Your task to perform on an android device: Add "corsair k70" to the cart on bestbuy Image 0: 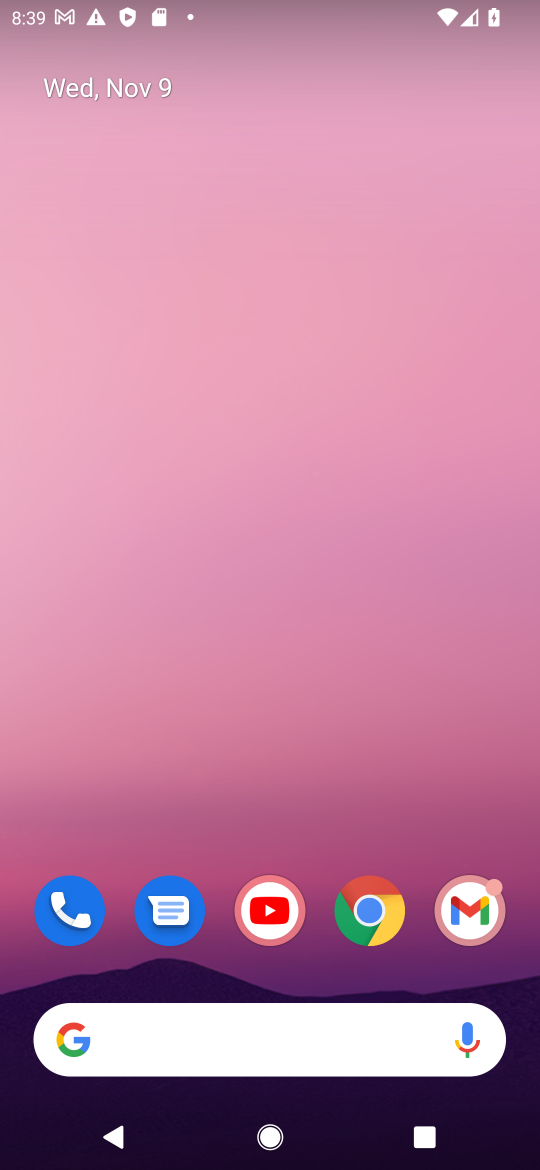
Step 0: click (373, 914)
Your task to perform on an android device: Add "corsair k70" to the cart on bestbuy Image 1: 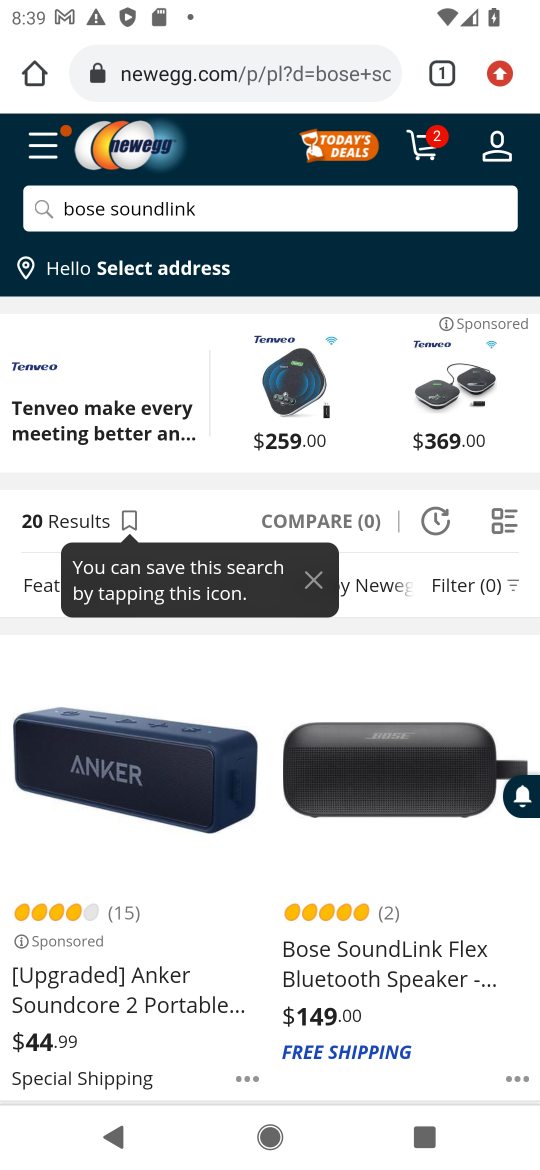
Step 1: click (183, 49)
Your task to perform on an android device: Add "corsair k70" to the cart on bestbuy Image 2: 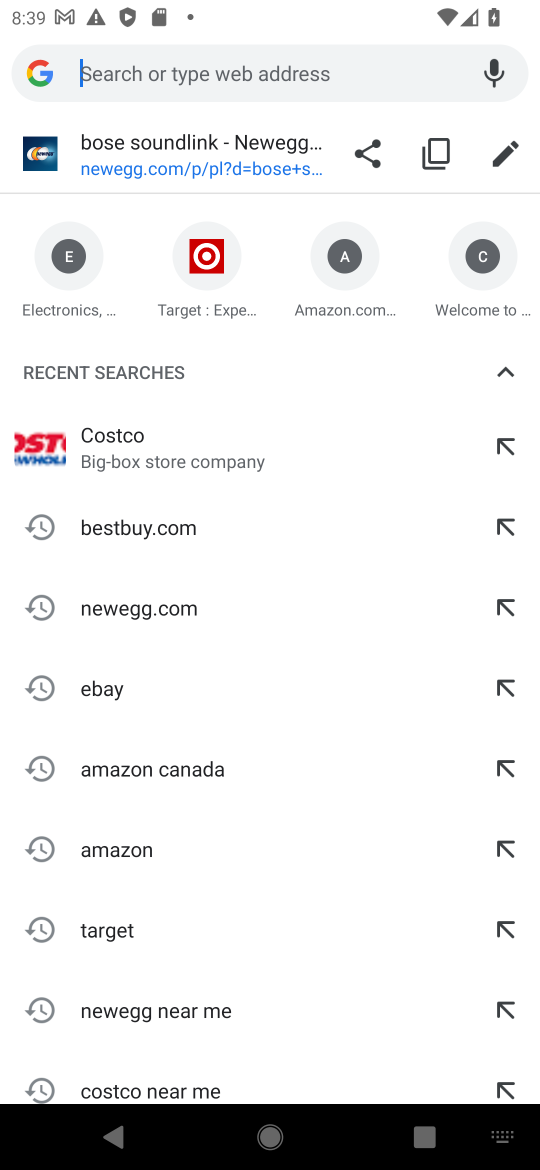
Step 2: click (102, 543)
Your task to perform on an android device: Add "corsair k70" to the cart on bestbuy Image 3: 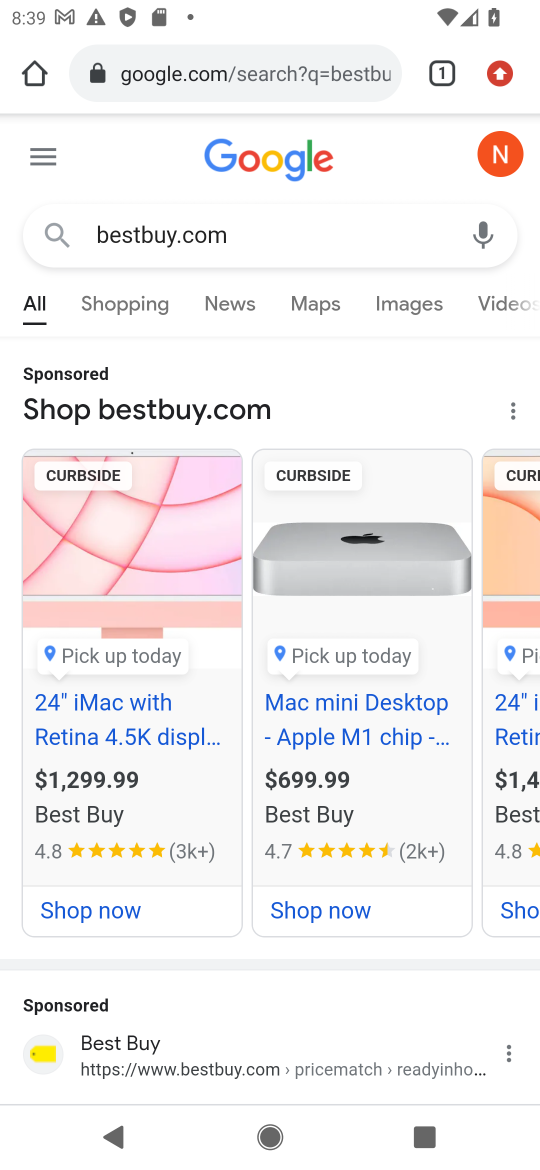
Step 3: drag from (181, 743) to (184, 291)
Your task to perform on an android device: Add "corsair k70" to the cart on bestbuy Image 4: 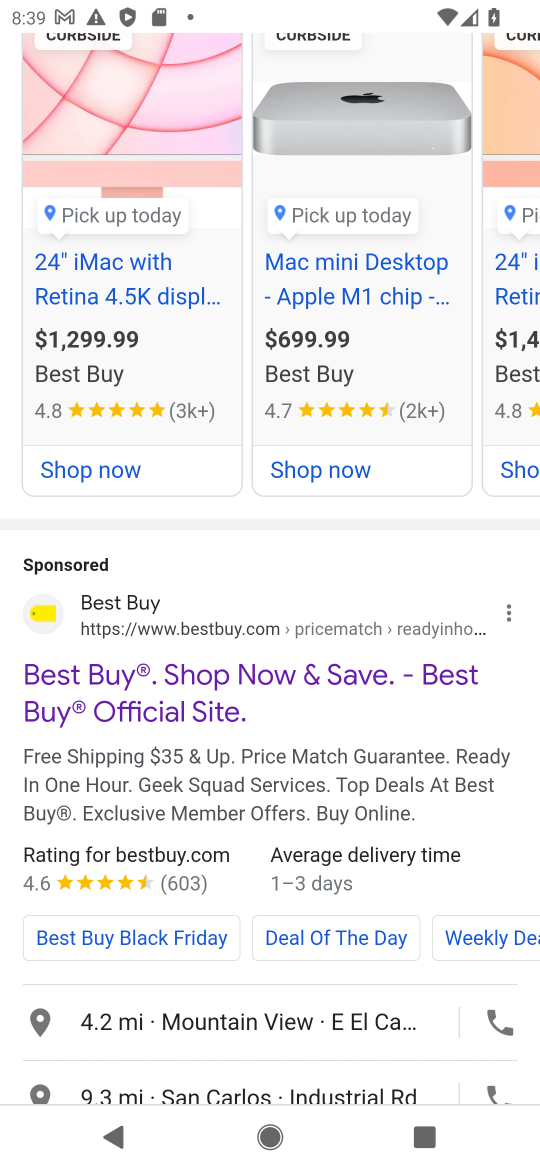
Step 4: drag from (150, 739) to (131, 335)
Your task to perform on an android device: Add "corsair k70" to the cart on bestbuy Image 5: 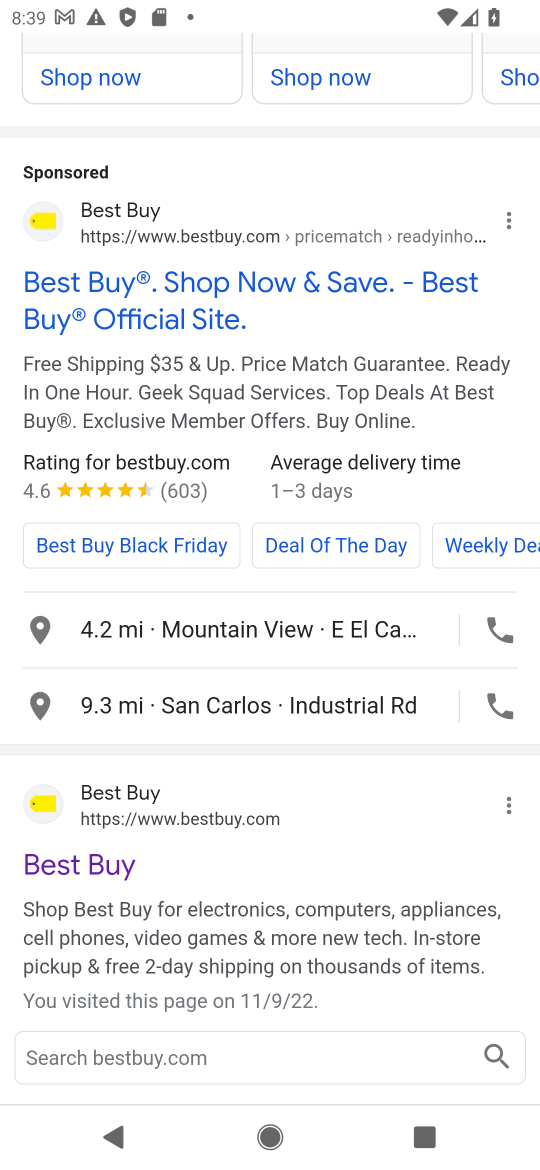
Step 5: click (93, 819)
Your task to perform on an android device: Add "corsair k70" to the cart on bestbuy Image 6: 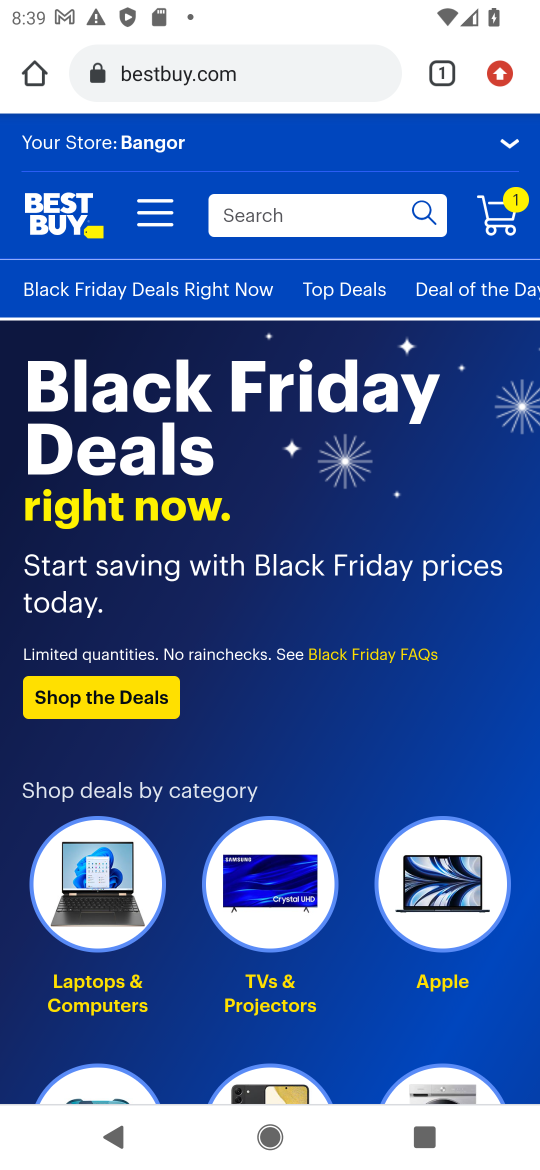
Step 6: click (267, 221)
Your task to perform on an android device: Add "corsair k70" to the cart on bestbuy Image 7: 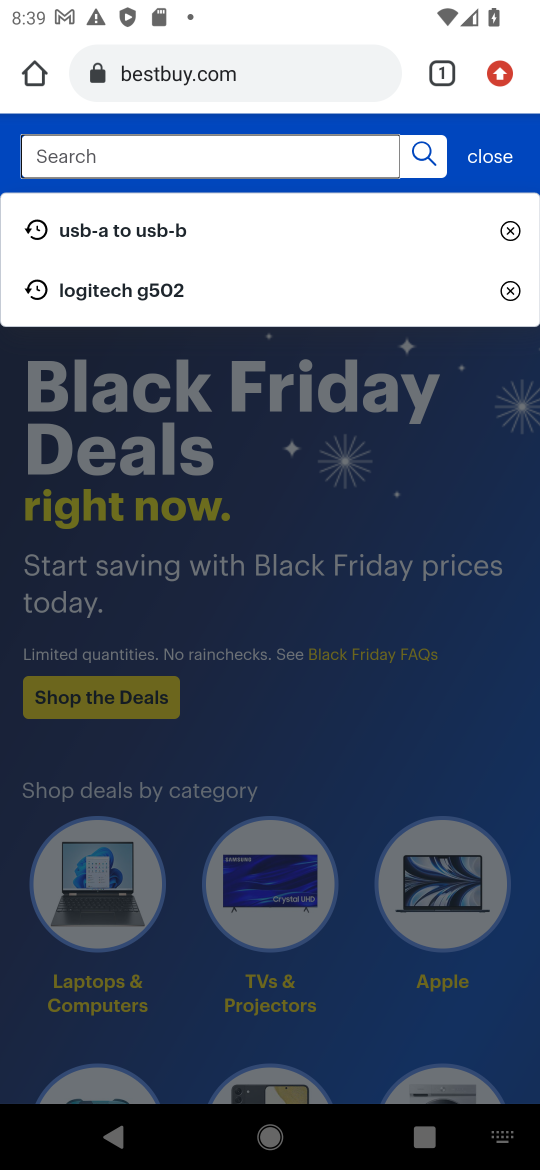
Step 7: type "corsair k70"
Your task to perform on an android device: Add "corsair k70" to the cart on bestbuy Image 8: 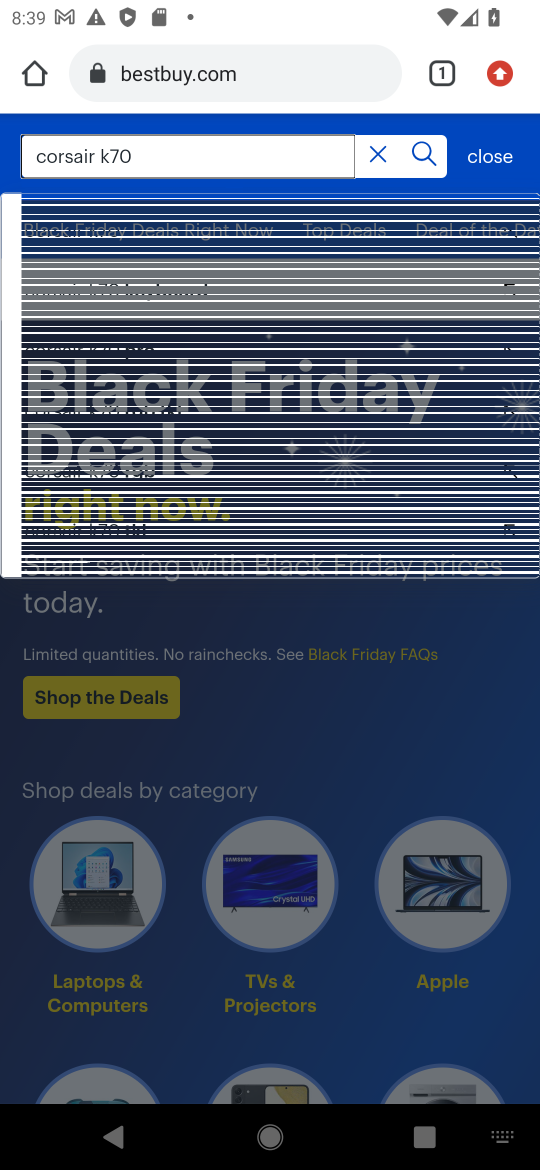
Step 8: click (83, 228)
Your task to perform on an android device: Add "corsair k70" to the cart on bestbuy Image 9: 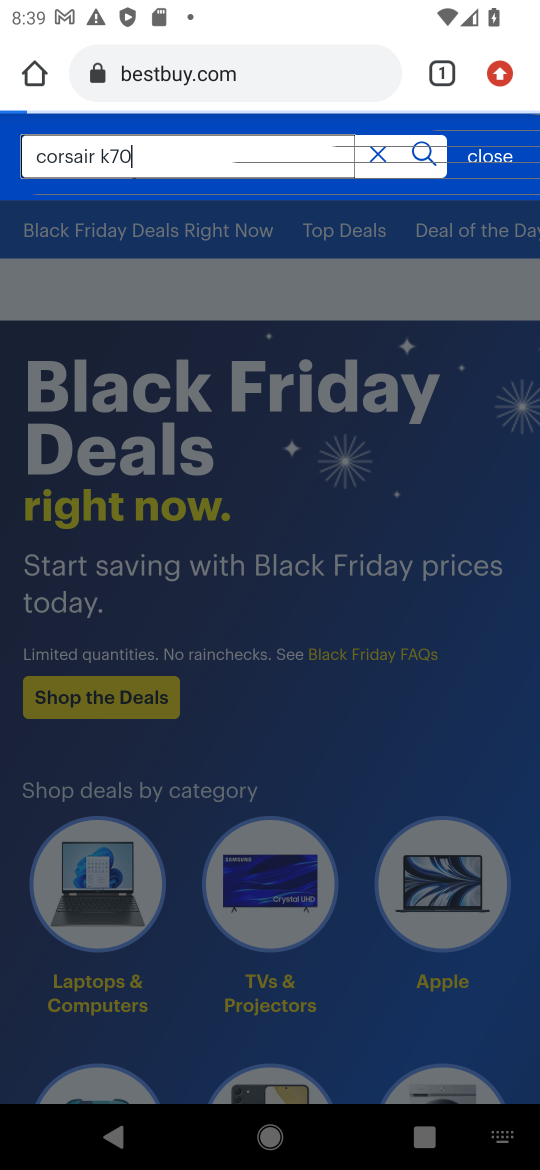
Step 9: click (82, 238)
Your task to perform on an android device: Add "corsair k70" to the cart on bestbuy Image 10: 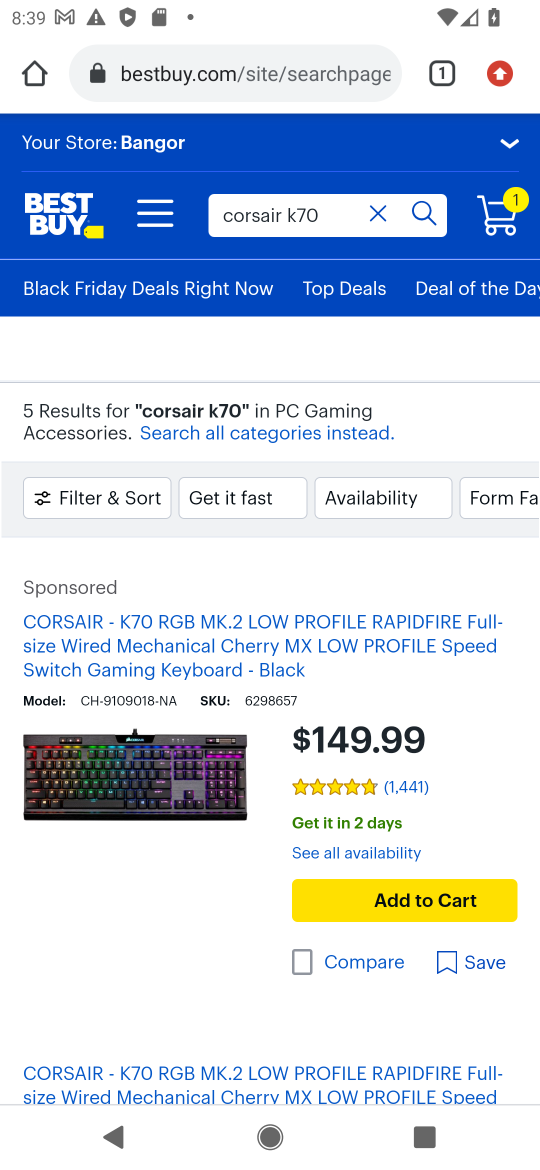
Step 10: drag from (208, 611) to (205, 454)
Your task to perform on an android device: Add "corsair k70" to the cart on bestbuy Image 11: 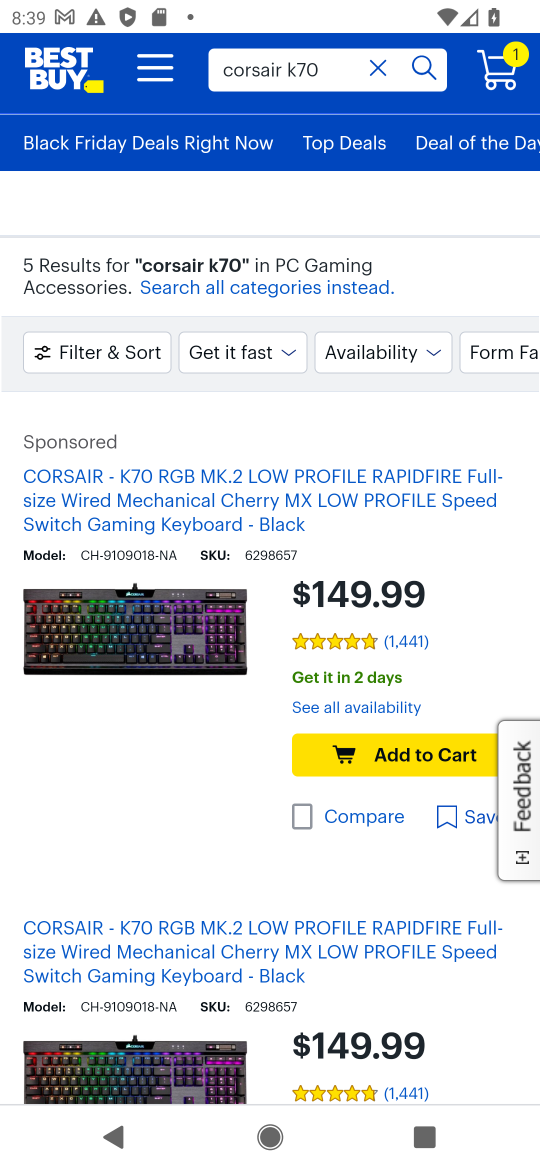
Step 11: click (404, 751)
Your task to perform on an android device: Add "corsair k70" to the cart on bestbuy Image 12: 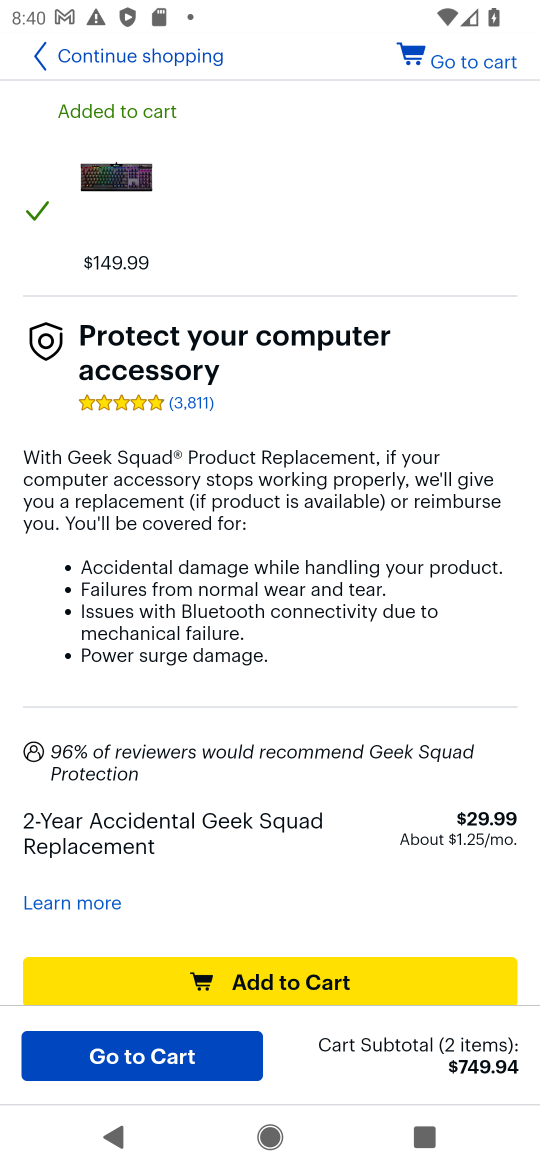
Step 12: task complete